Your task to perform on an android device: Go to notification settings Image 0: 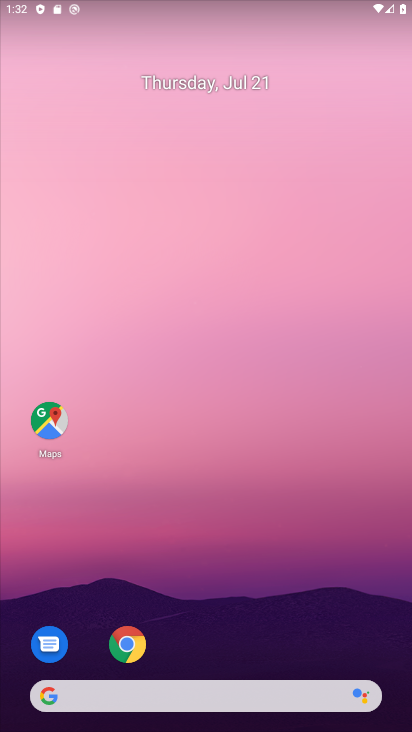
Step 0: drag from (290, 620) to (295, 2)
Your task to perform on an android device: Go to notification settings Image 1: 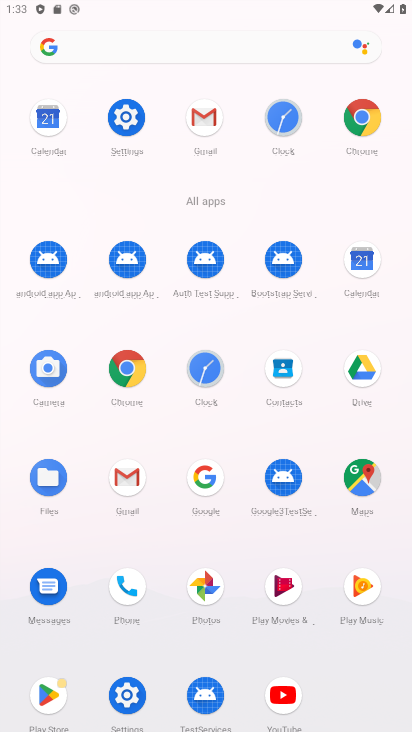
Step 1: click (129, 694)
Your task to perform on an android device: Go to notification settings Image 2: 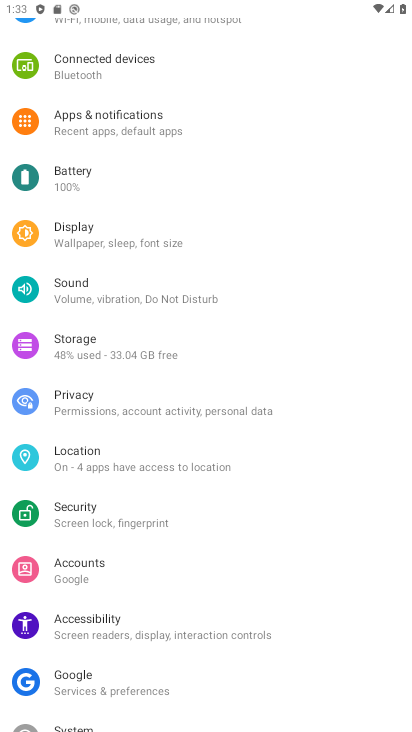
Step 2: click (145, 124)
Your task to perform on an android device: Go to notification settings Image 3: 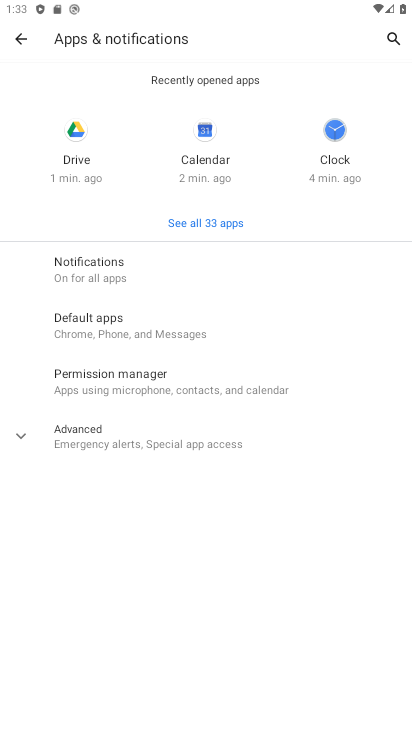
Step 3: click (245, 258)
Your task to perform on an android device: Go to notification settings Image 4: 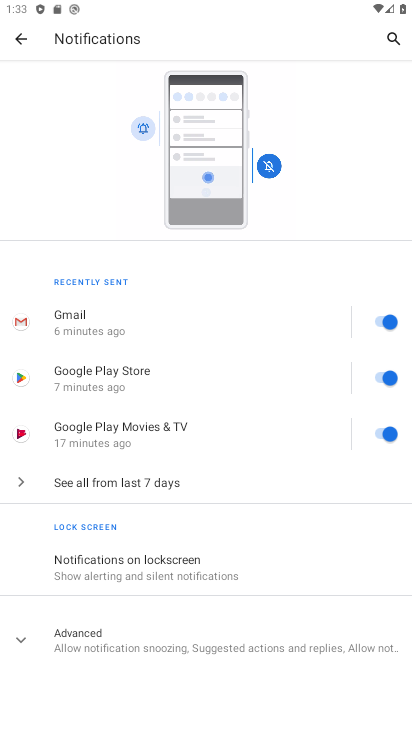
Step 4: task complete